Your task to perform on an android device: What's on my calendar tomorrow? Image 0: 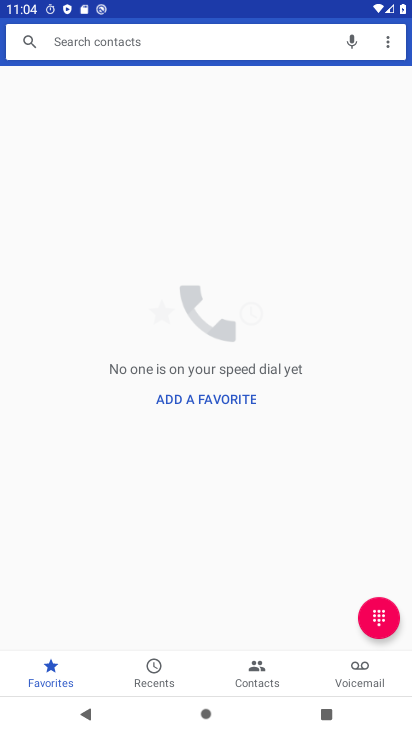
Step 0: press home button
Your task to perform on an android device: What's on my calendar tomorrow? Image 1: 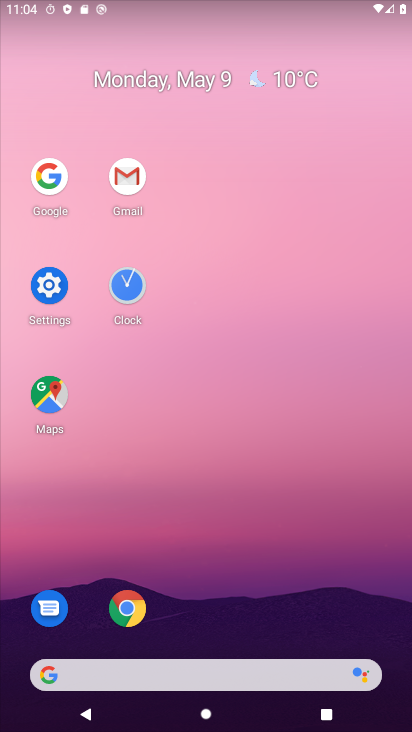
Step 1: drag from (254, 609) to (237, 192)
Your task to perform on an android device: What's on my calendar tomorrow? Image 2: 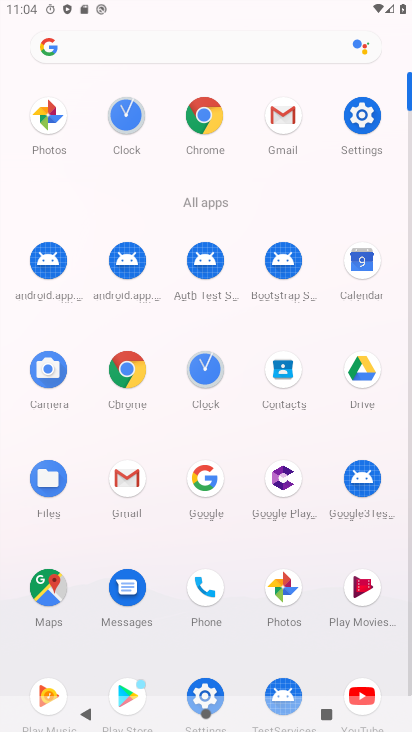
Step 2: drag from (361, 264) to (190, 325)
Your task to perform on an android device: What's on my calendar tomorrow? Image 3: 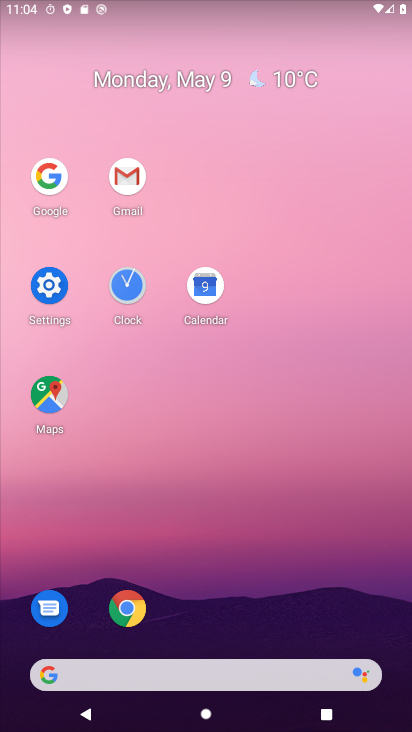
Step 3: click (211, 285)
Your task to perform on an android device: What's on my calendar tomorrow? Image 4: 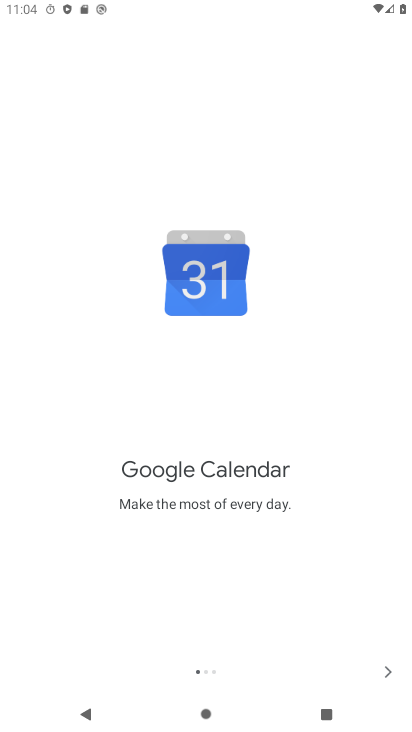
Step 4: click (396, 672)
Your task to perform on an android device: What's on my calendar tomorrow? Image 5: 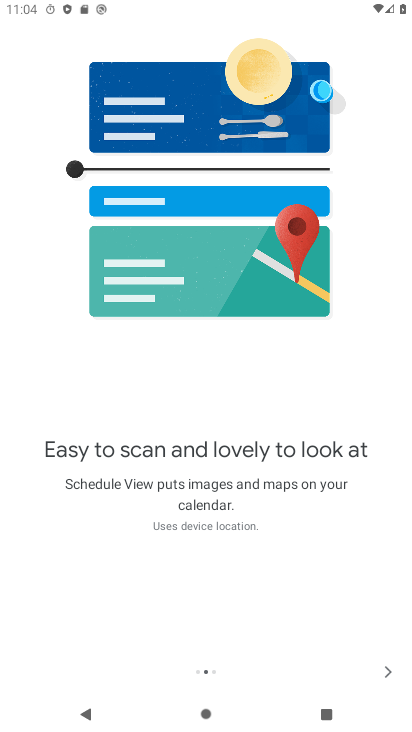
Step 5: click (396, 672)
Your task to perform on an android device: What's on my calendar tomorrow? Image 6: 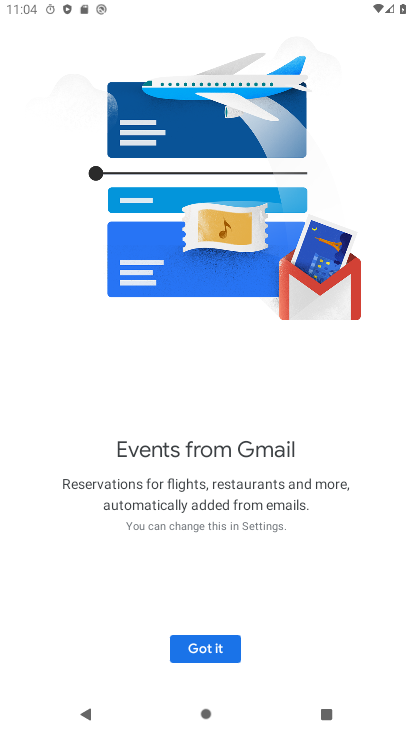
Step 6: click (207, 657)
Your task to perform on an android device: What's on my calendar tomorrow? Image 7: 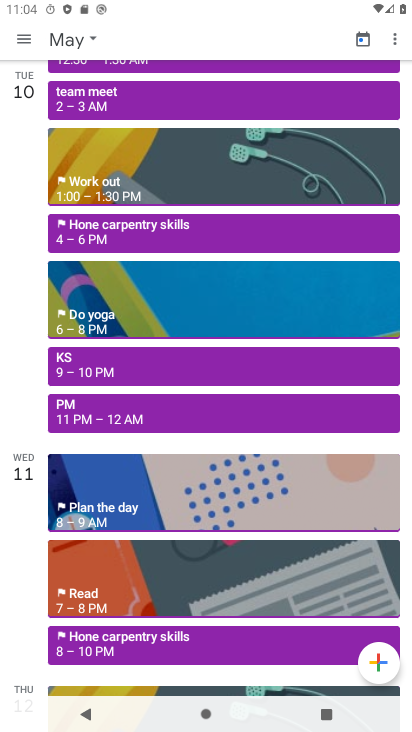
Step 7: click (24, 465)
Your task to perform on an android device: What's on my calendar tomorrow? Image 8: 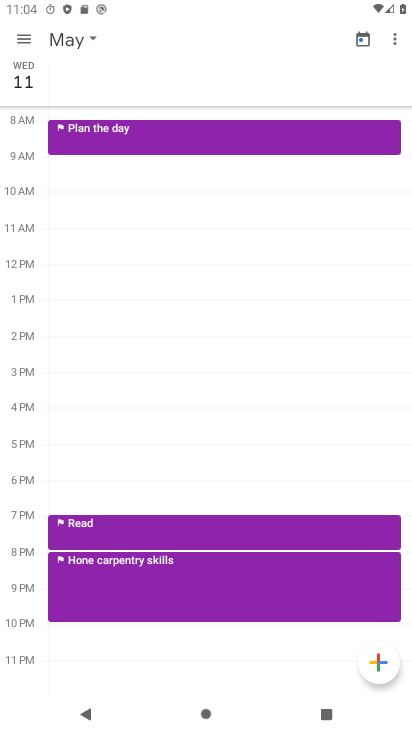
Step 8: task complete